Your task to perform on an android device: open app "The Home Depot" (install if not already installed) Image 0: 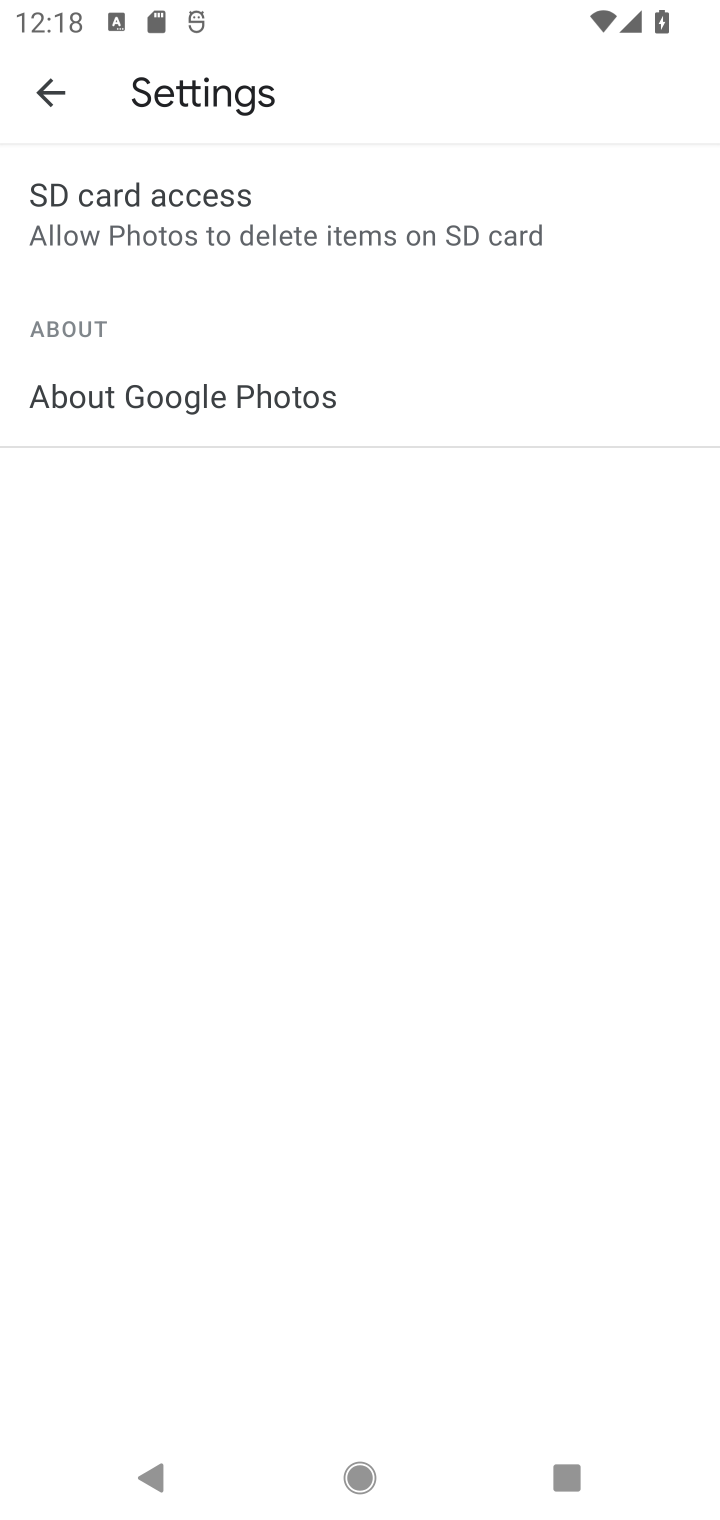
Step 0: press home button
Your task to perform on an android device: open app "The Home Depot" (install if not already installed) Image 1: 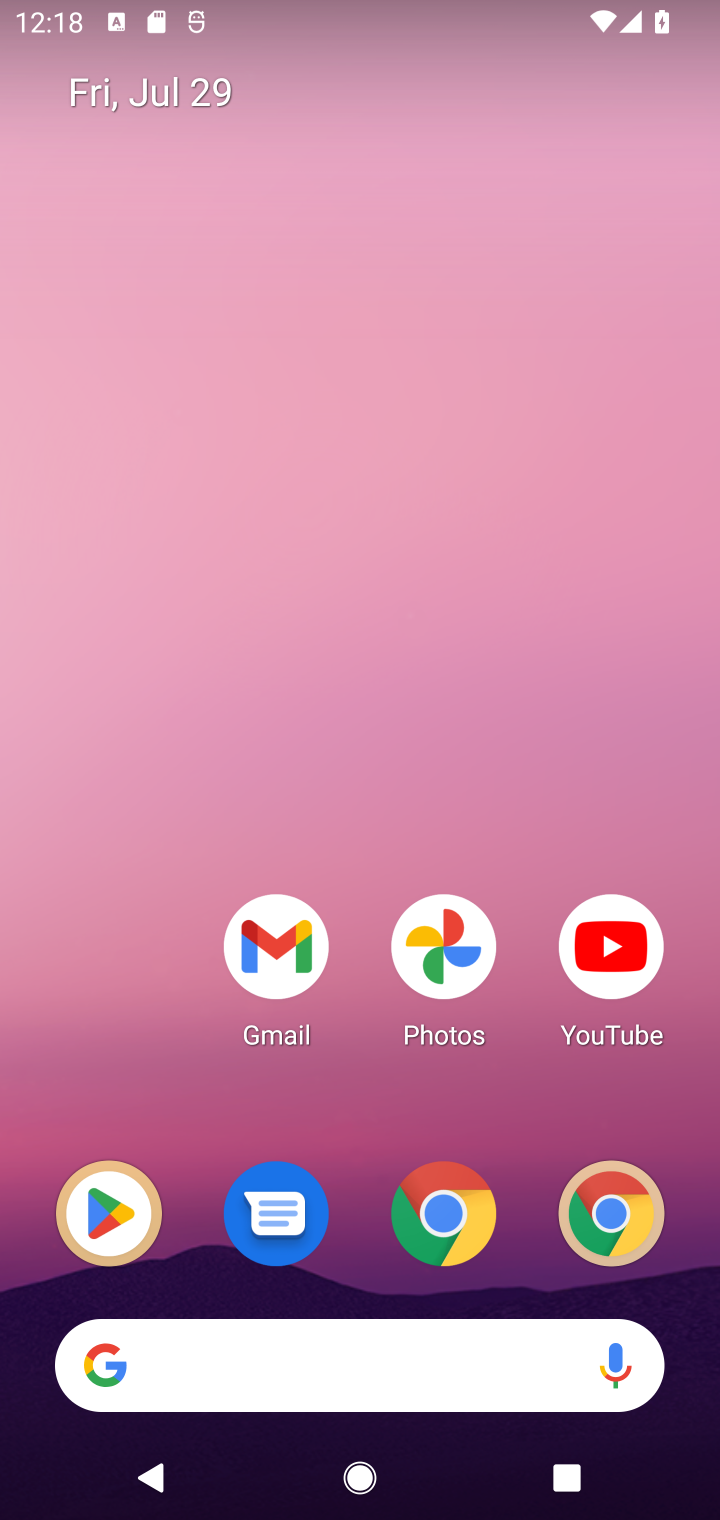
Step 1: drag from (414, 1432) to (405, 205)
Your task to perform on an android device: open app "The Home Depot" (install if not already installed) Image 2: 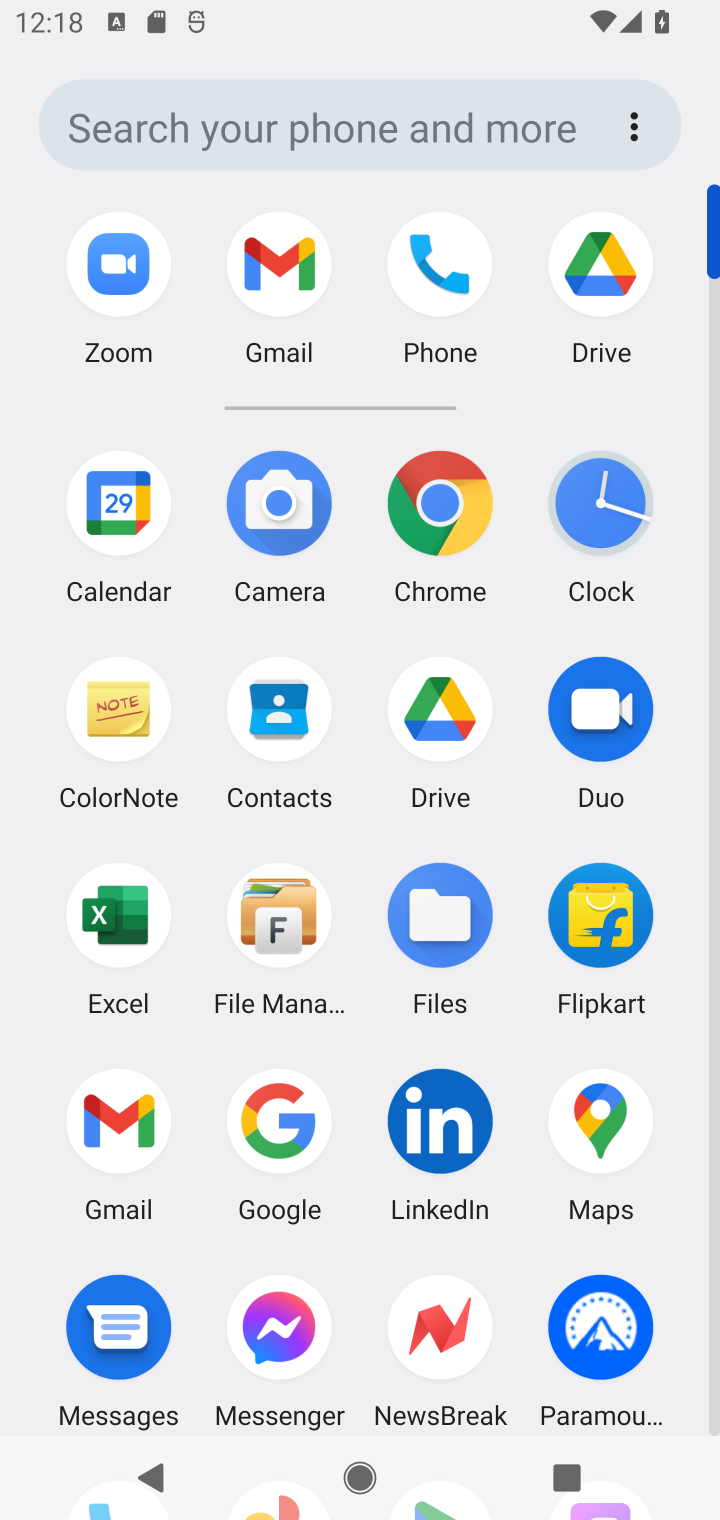
Step 2: drag from (184, 1287) to (152, 418)
Your task to perform on an android device: open app "The Home Depot" (install if not already installed) Image 3: 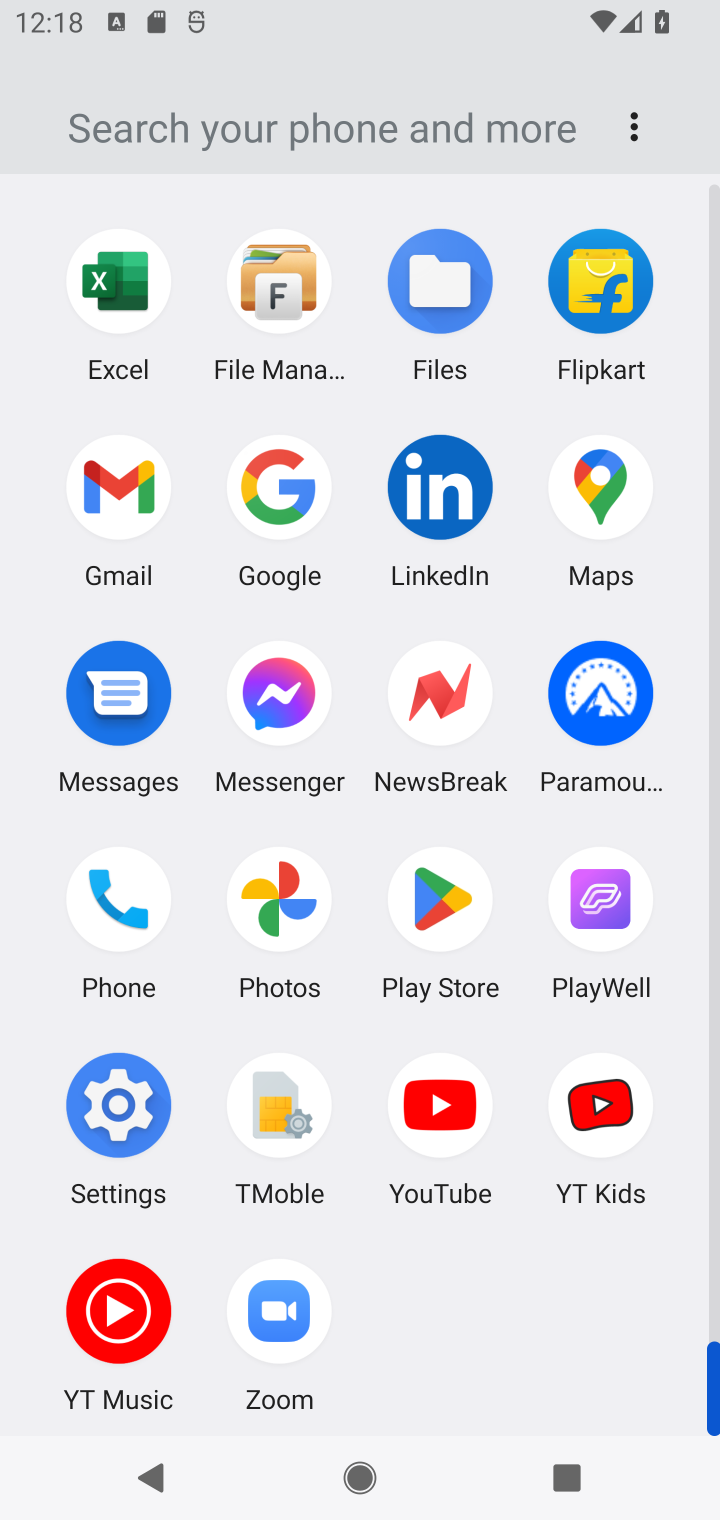
Step 3: click (436, 864)
Your task to perform on an android device: open app "The Home Depot" (install if not already installed) Image 4: 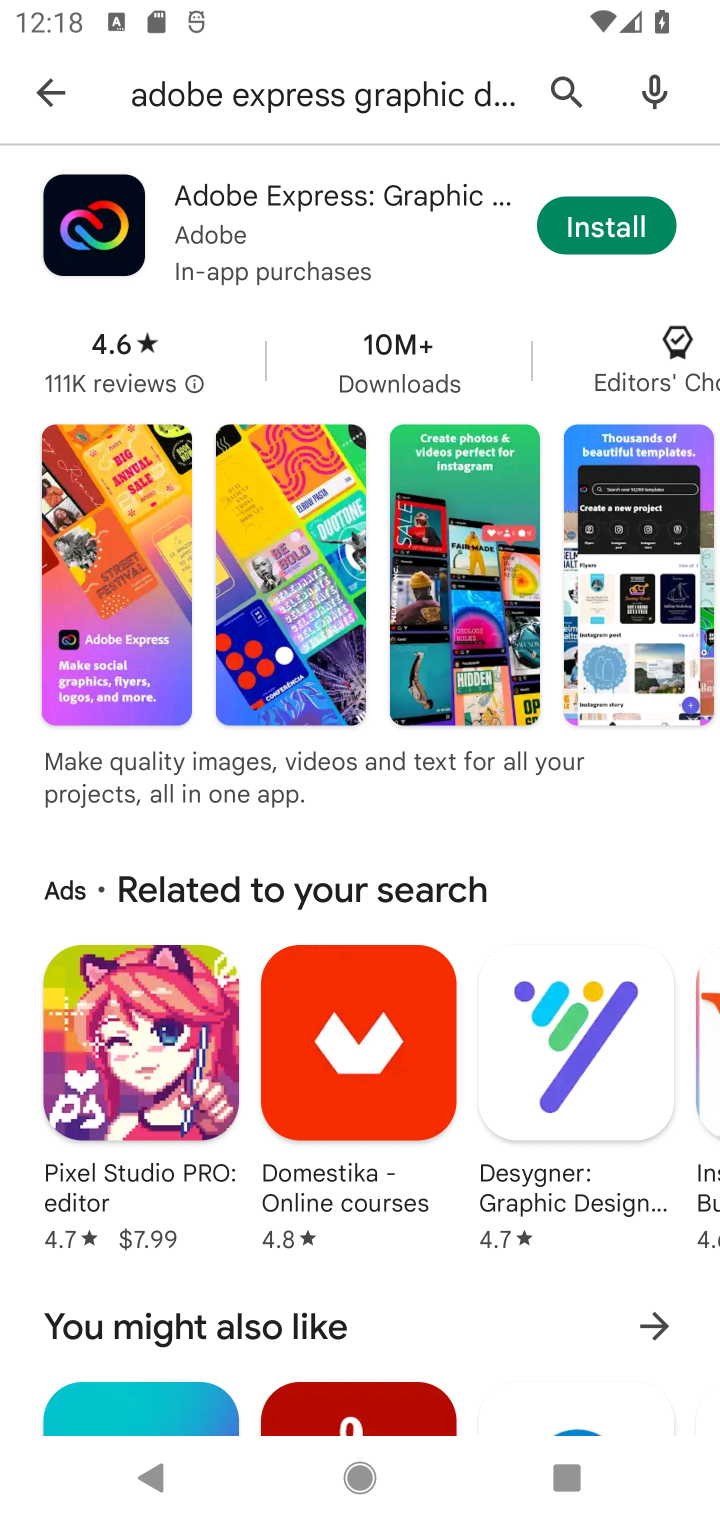
Step 4: click (49, 84)
Your task to perform on an android device: open app "The Home Depot" (install if not already installed) Image 5: 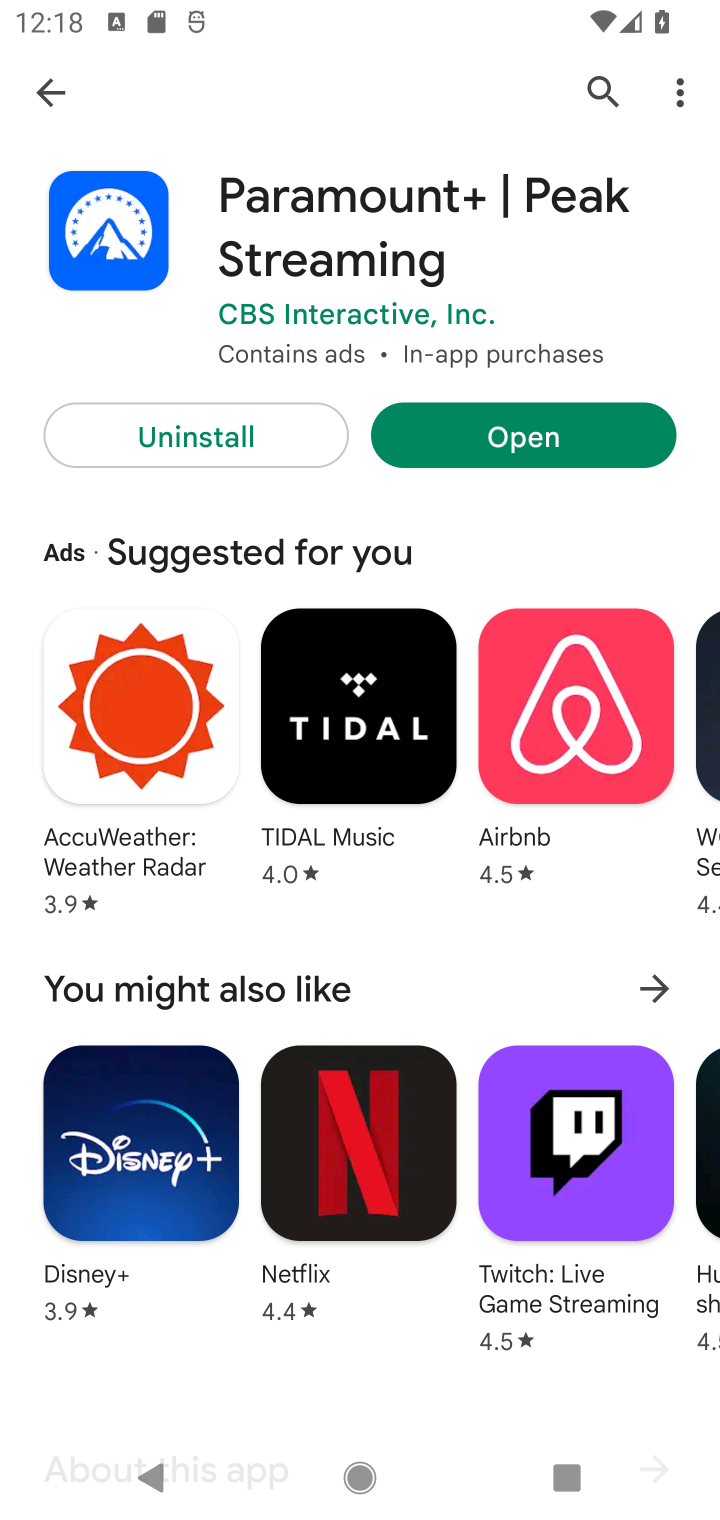
Step 5: click (601, 94)
Your task to perform on an android device: open app "The Home Depot" (install if not already installed) Image 6: 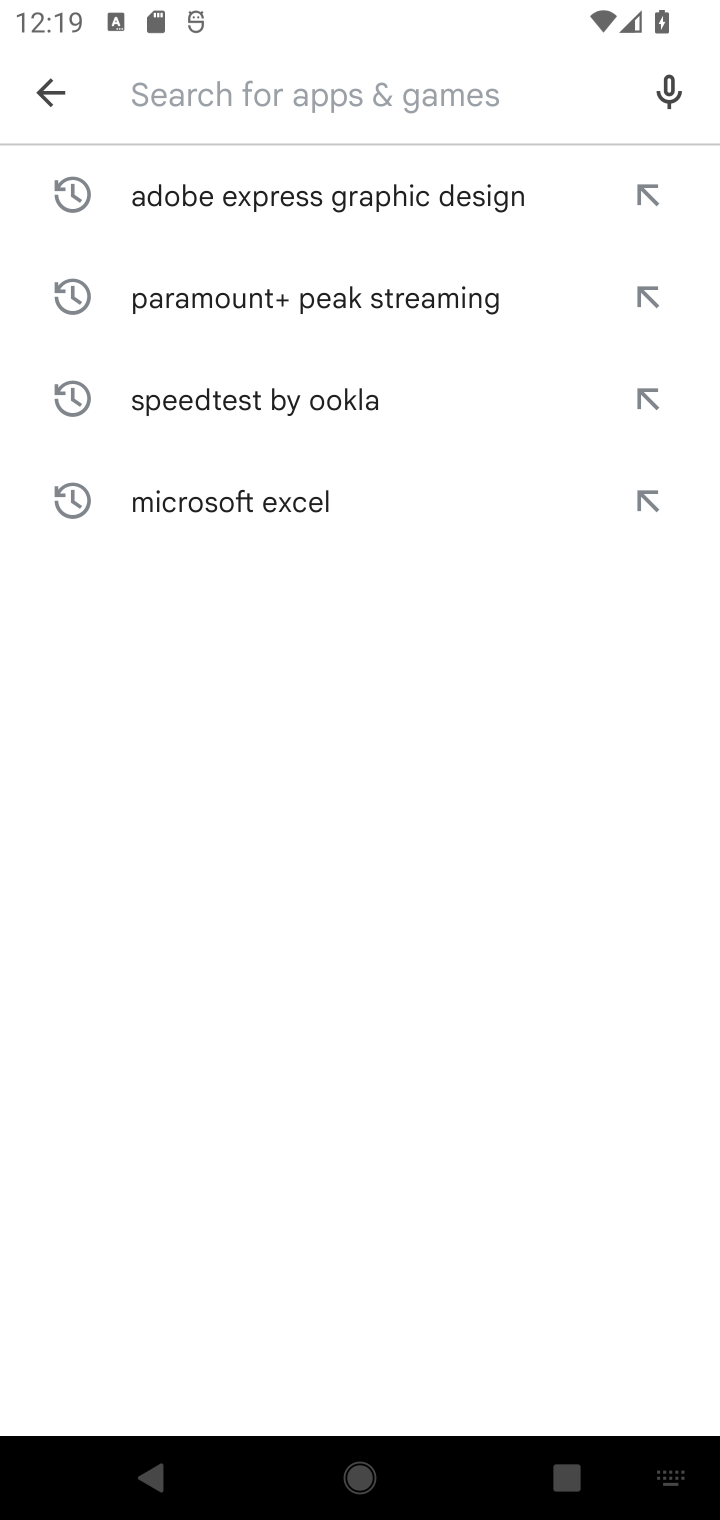
Step 6: type "The Home Depot"
Your task to perform on an android device: open app "The Home Depot" (install if not already installed) Image 7: 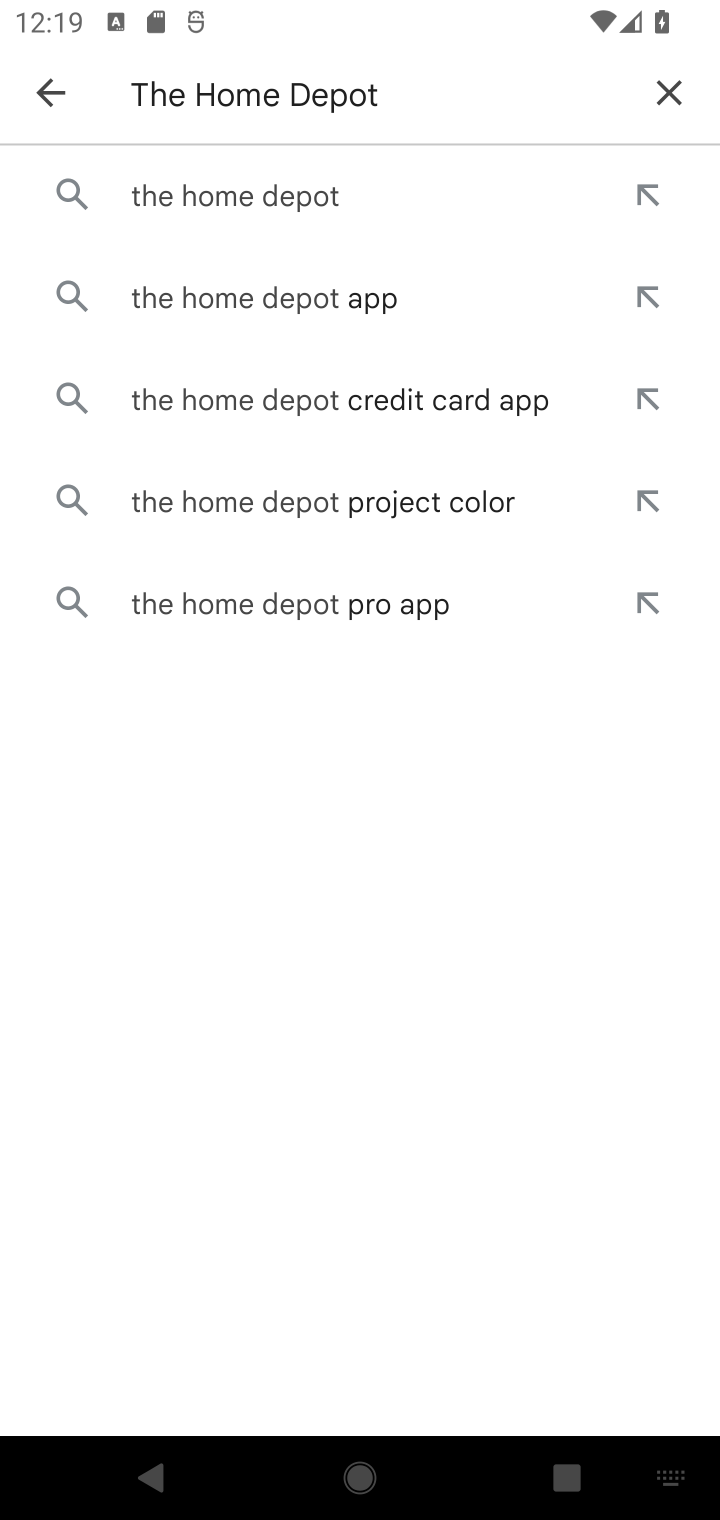
Step 7: click (289, 192)
Your task to perform on an android device: open app "The Home Depot" (install if not already installed) Image 8: 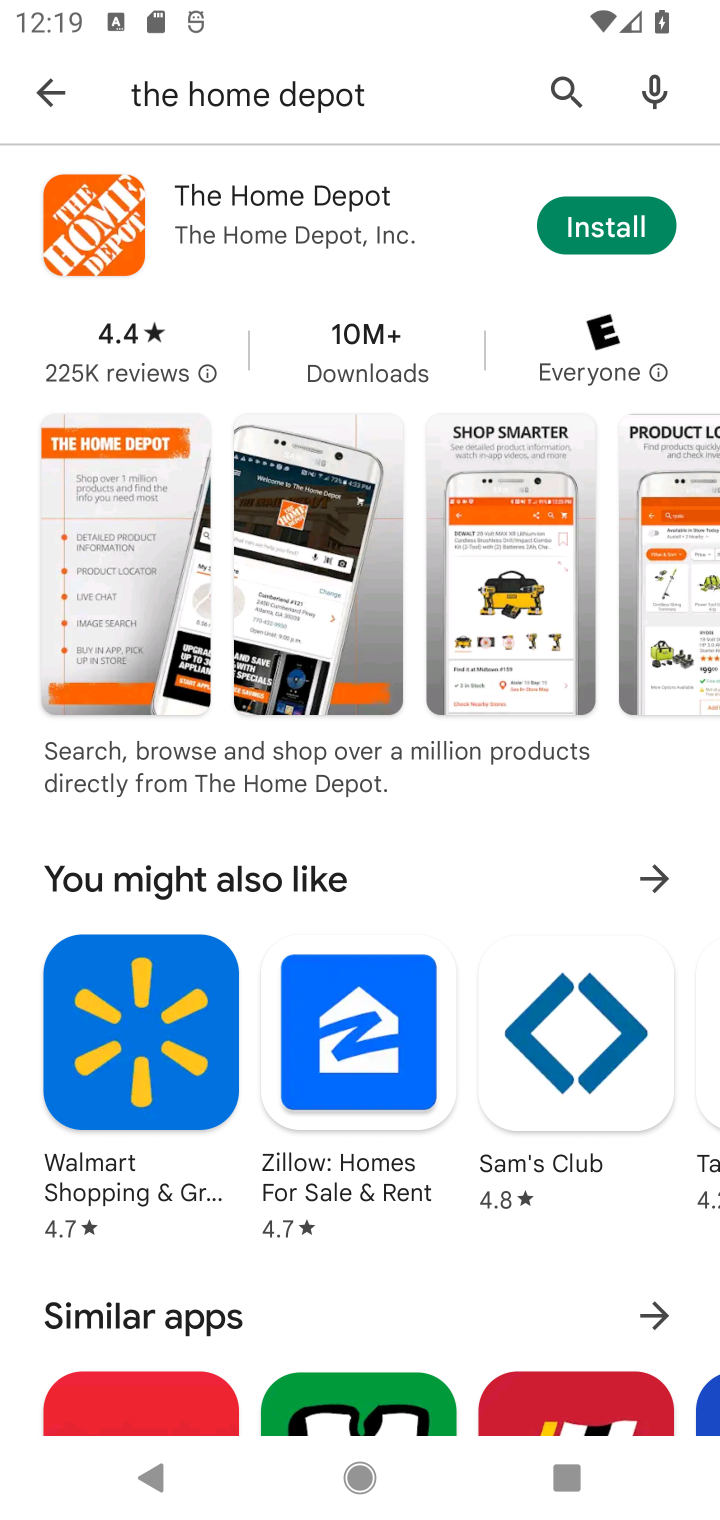
Step 8: click (572, 224)
Your task to perform on an android device: open app "The Home Depot" (install if not already installed) Image 9: 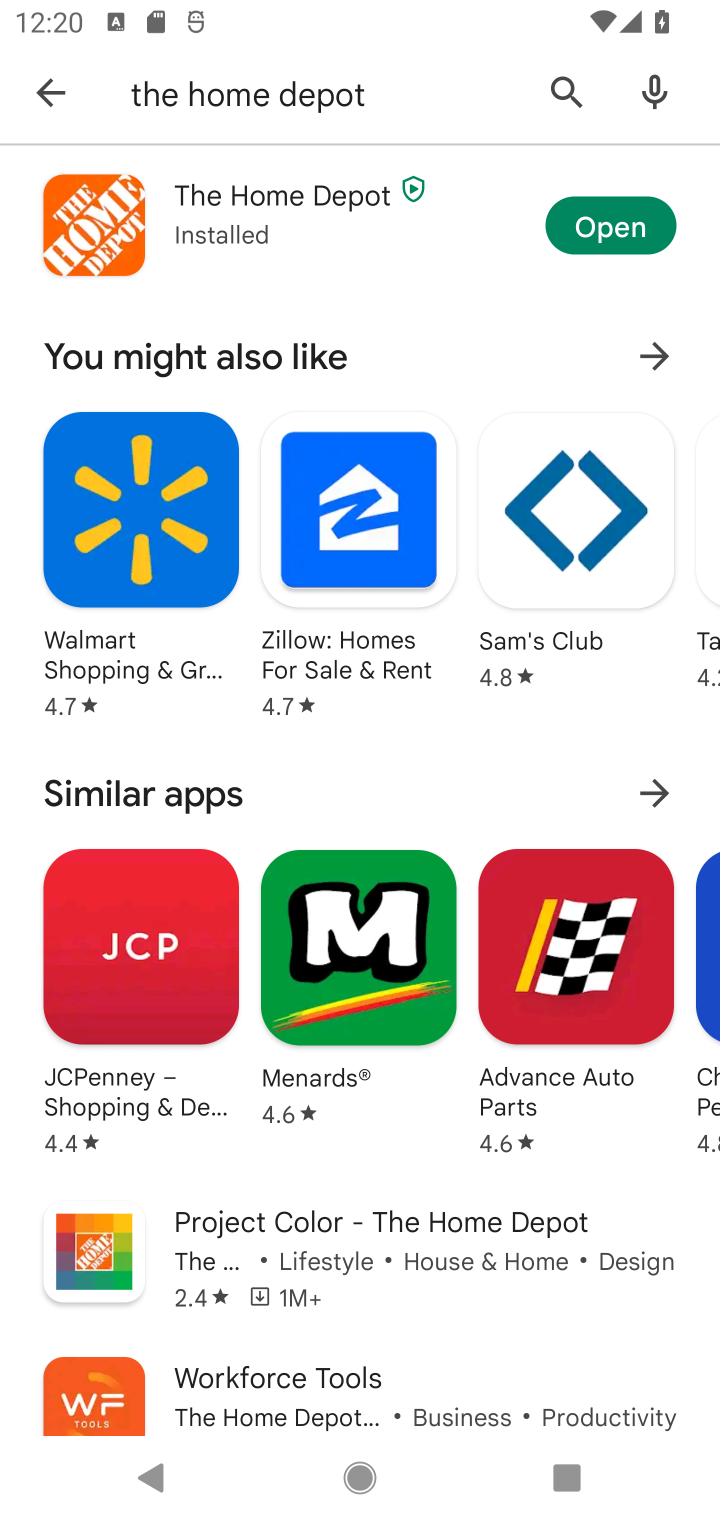
Step 9: task complete